Your task to perform on an android device: star an email in the gmail app Image 0: 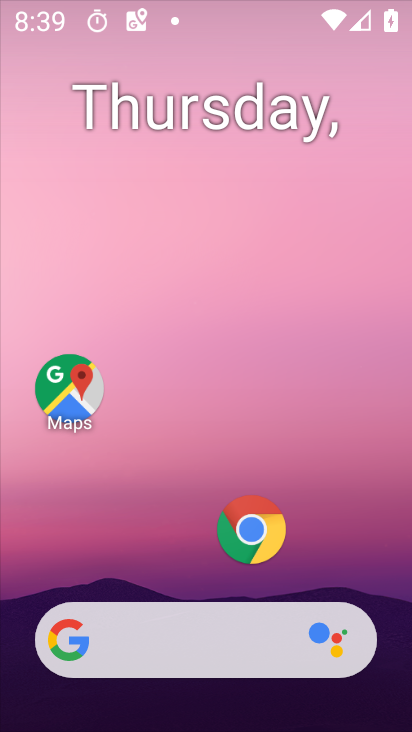
Step 0: press home button
Your task to perform on an android device: star an email in the gmail app Image 1: 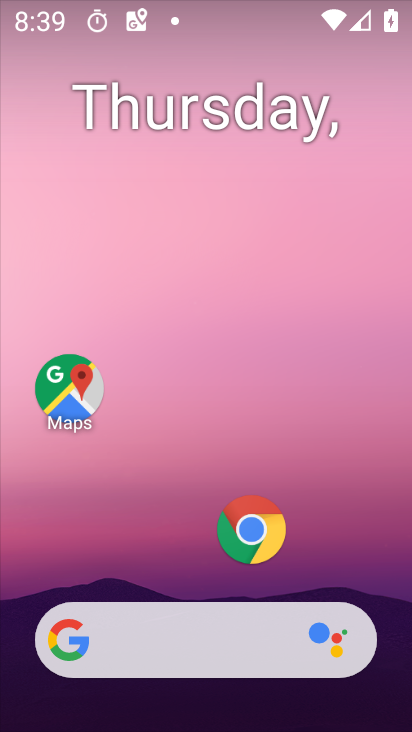
Step 1: drag from (180, 575) to (203, 1)
Your task to perform on an android device: star an email in the gmail app Image 2: 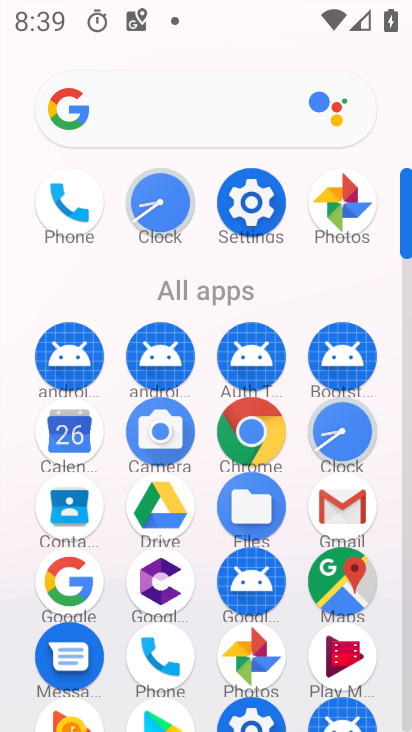
Step 2: click (340, 495)
Your task to perform on an android device: star an email in the gmail app Image 3: 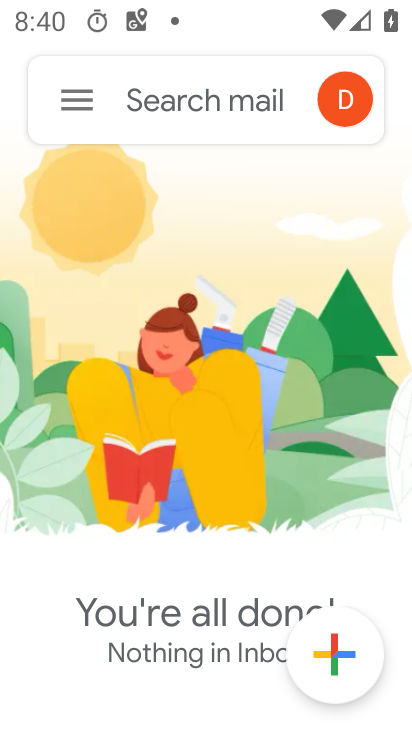
Step 3: task complete